Your task to perform on an android device: change notifications settings Image 0: 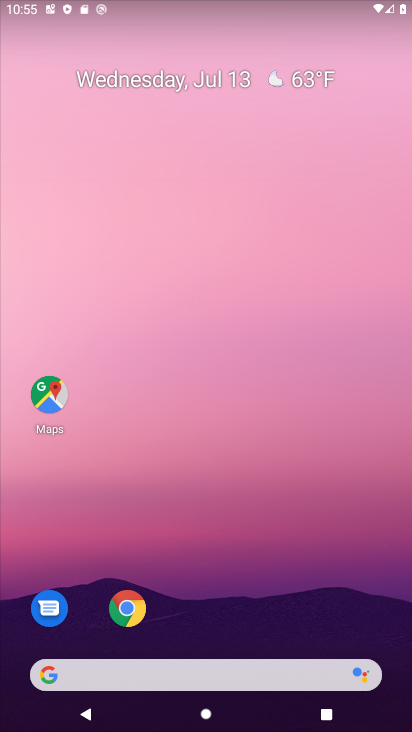
Step 0: press home button
Your task to perform on an android device: change notifications settings Image 1: 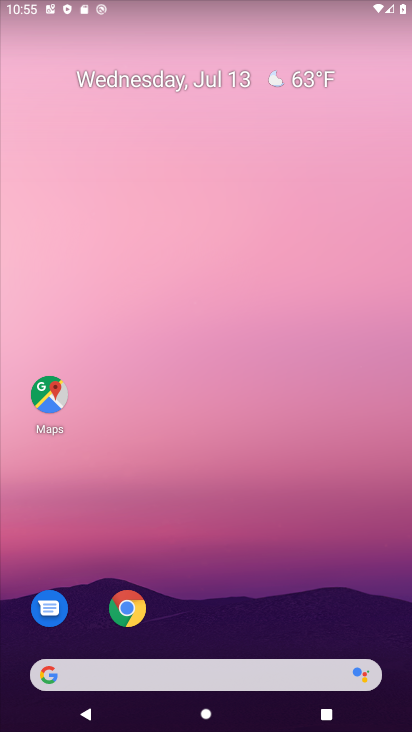
Step 1: drag from (276, 600) to (281, 47)
Your task to perform on an android device: change notifications settings Image 2: 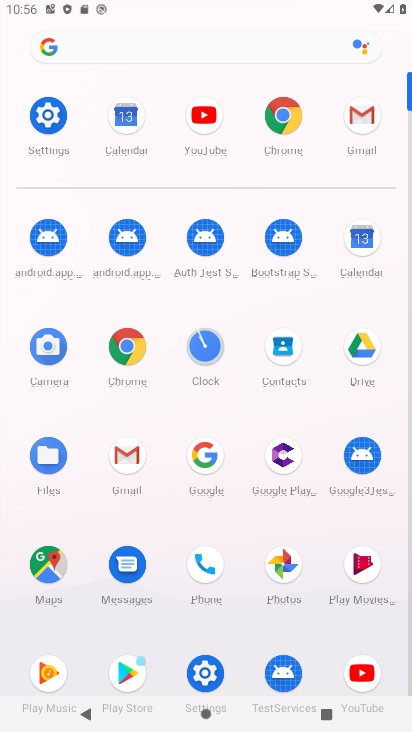
Step 2: click (39, 119)
Your task to perform on an android device: change notifications settings Image 3: 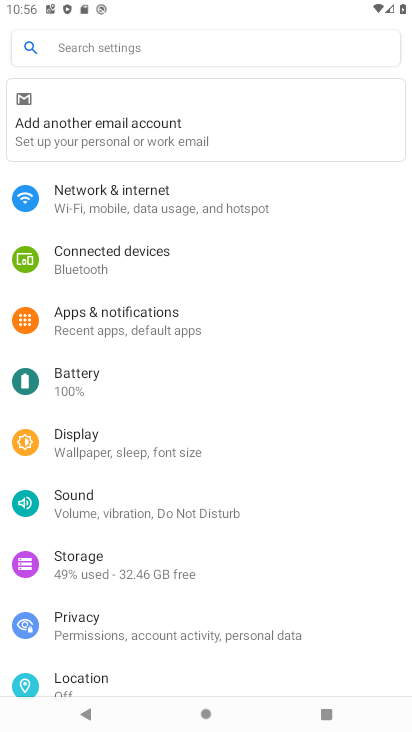
Step 3: click (115, 312)
Your task to perform on an android device: change notifications settings Image 4: 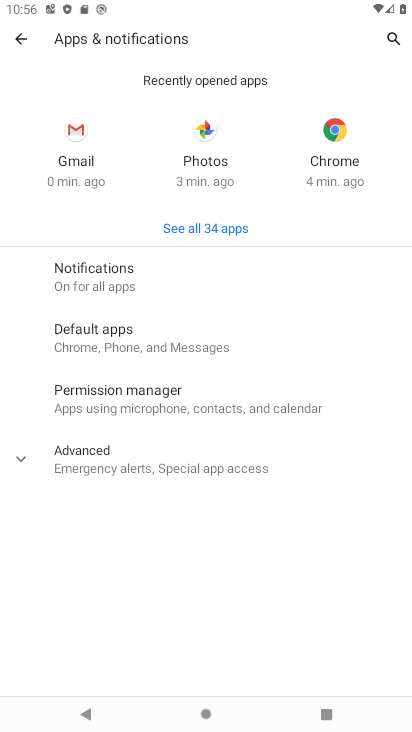
Step 4: click (102, 277)
Your task to perform on an android device: change notifications settings Image 5: 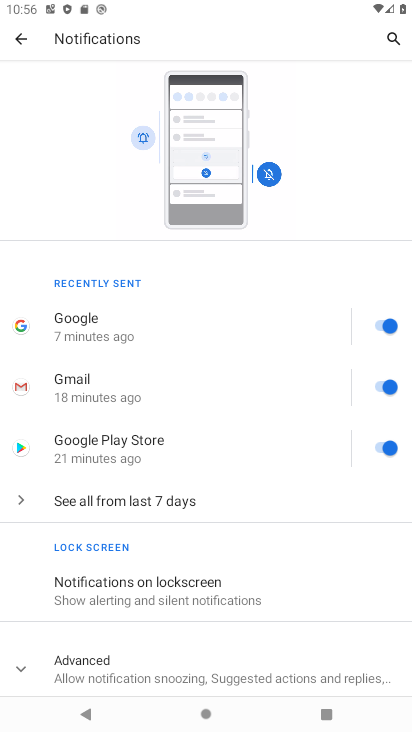
Step 5: click (272, 178)
Your task to perform on an android device: change notifications settings Image 6: 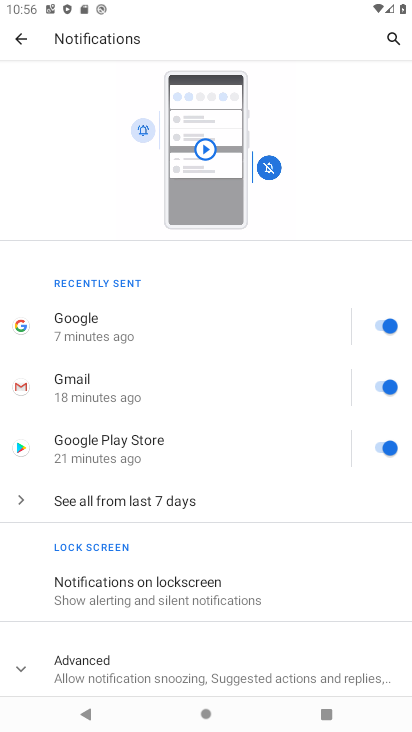
Step 6: task complete